Your task to perform on an android device: Add razer nari to the cart on ebay Image 0: 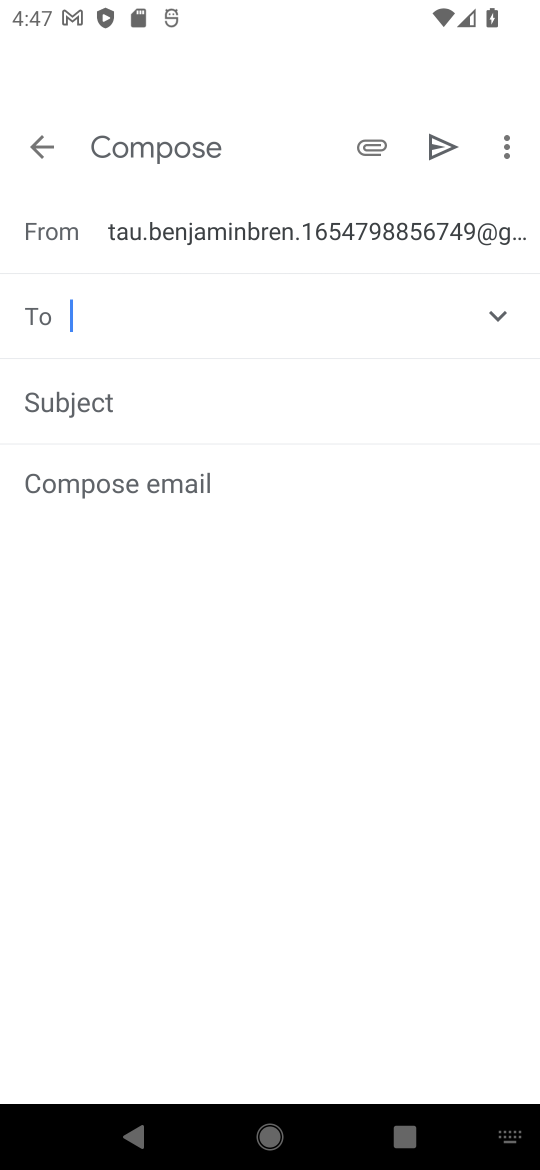
Step 0: press home button
Your task to perform on an android device: Add razer nari to the cart on ebay Image 1: 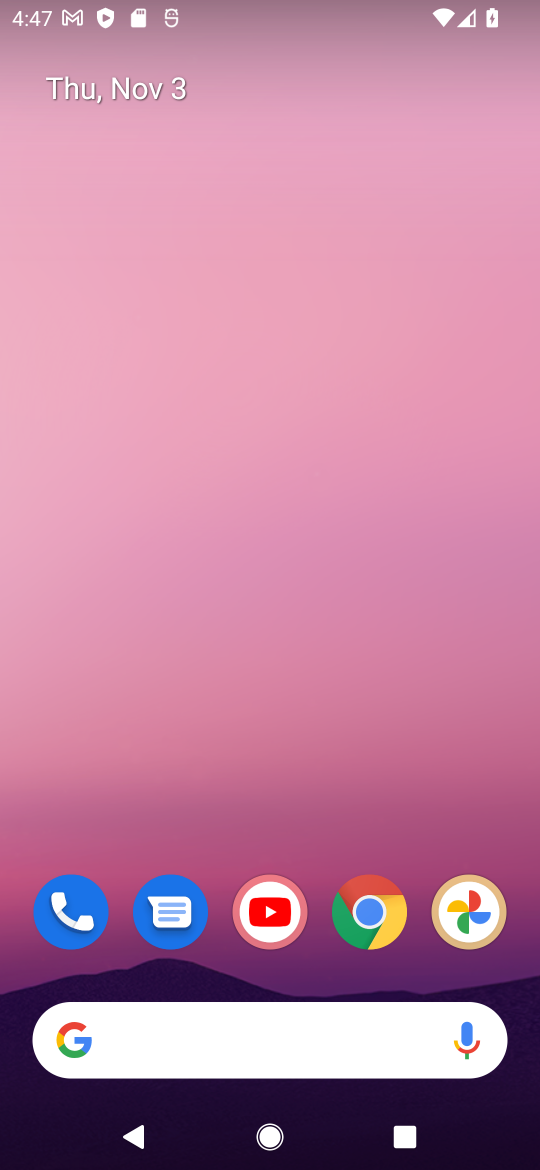
Step 1: click (370, 924)
Your task to perform on an android device: Add razer nari to the cart on ebay Image 2: 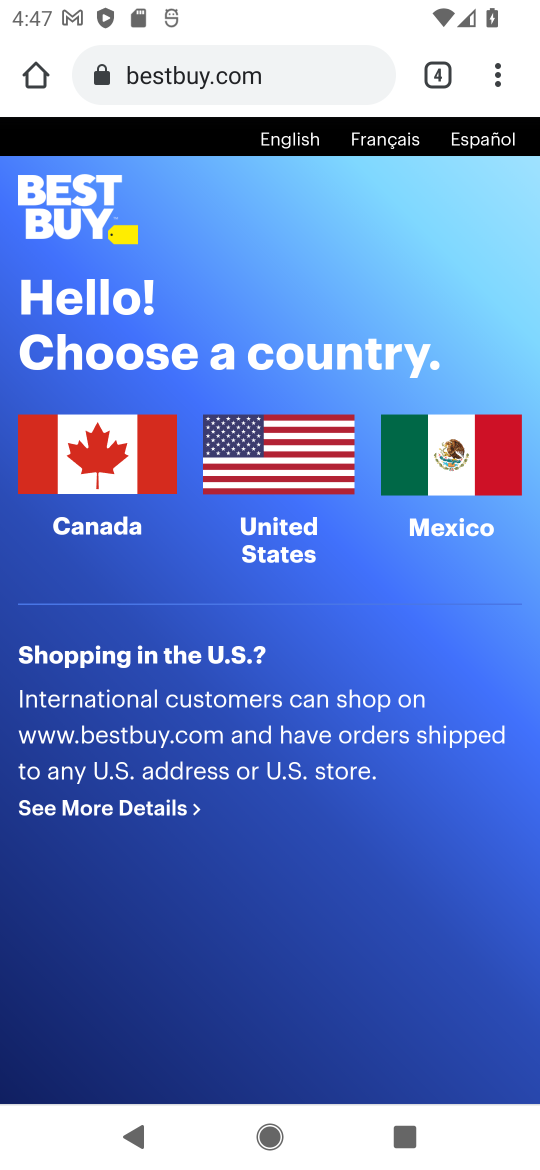
Step 2: click (432, 69)
Your task to perform on an android device: Add razer nari to the cart on ebay Image 3: 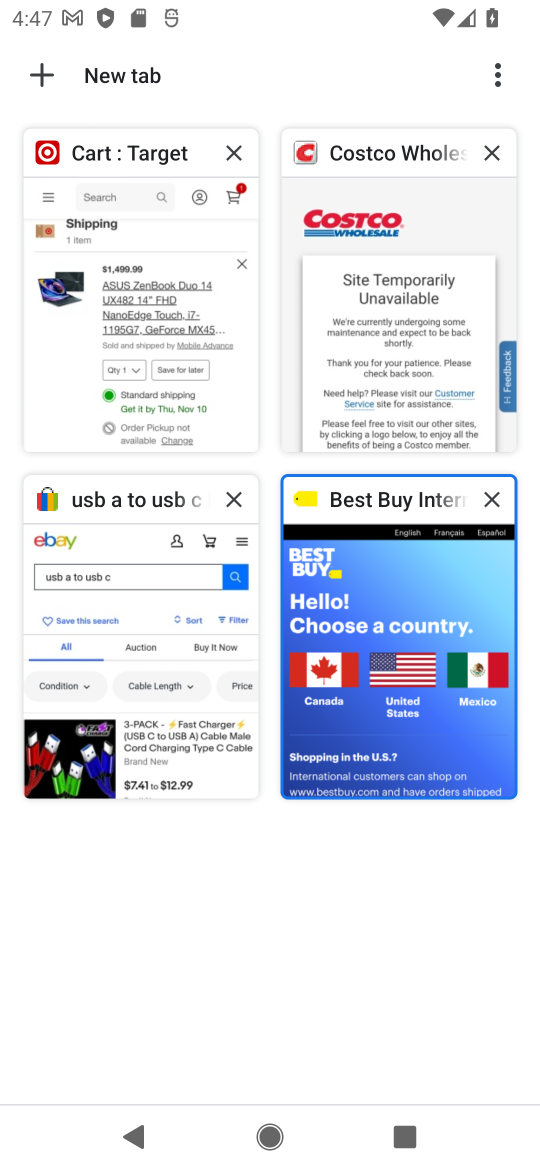
Step 3: click (32, 76)
Your task to perform on an android device: Add razer nari to the cart on ebay Image 4: 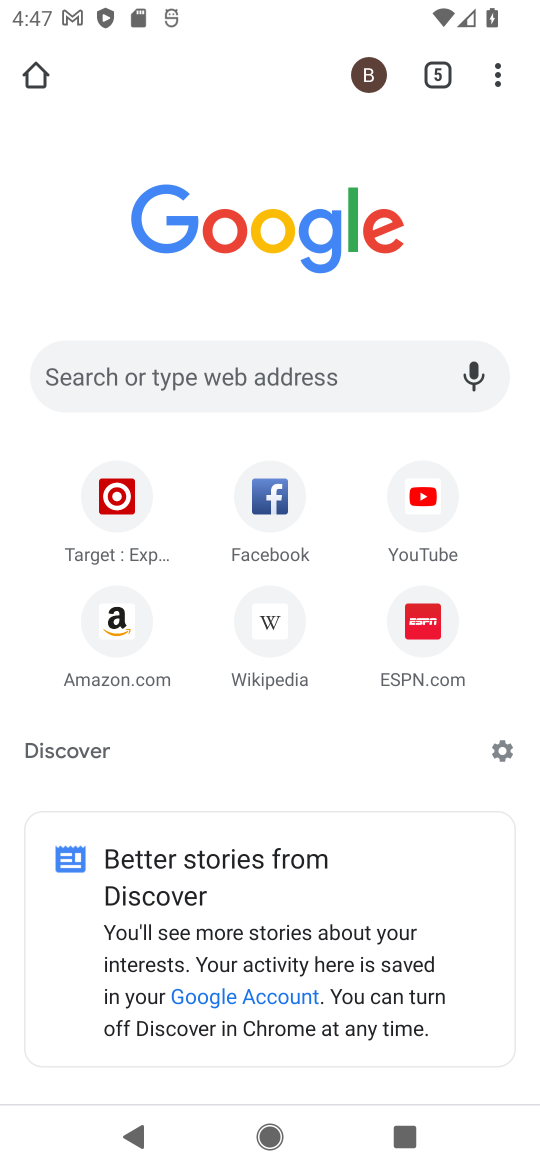
Step 4: click (164, 372)
Your task to perform on an android device: Add razer nari to the cart on ebay Image 5: 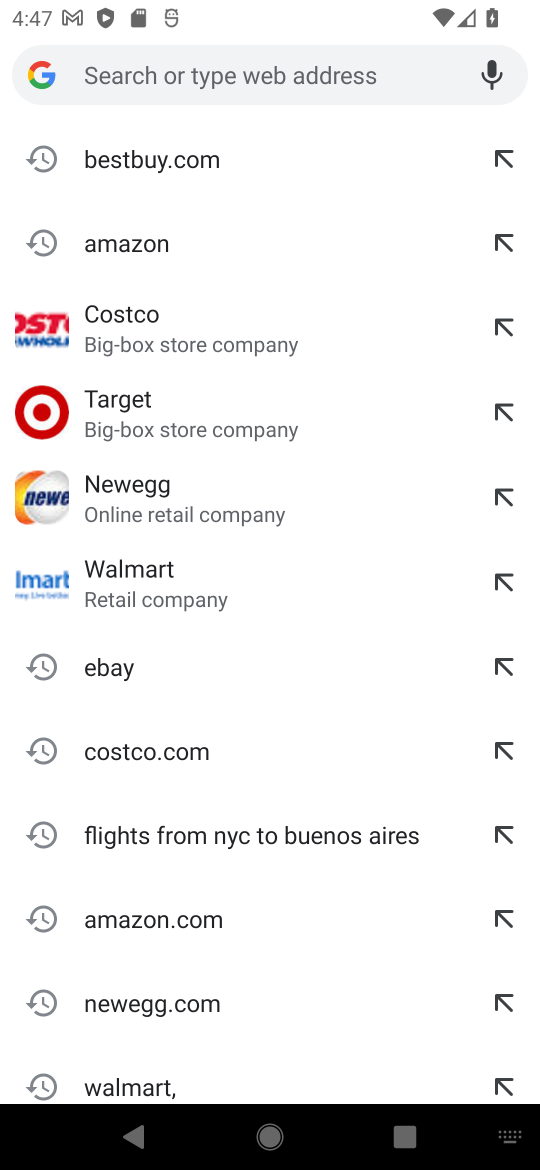
Step 5: type "ebay"
Your task to perform on an android device: Add razer nari to the cart on ebay Image 6: 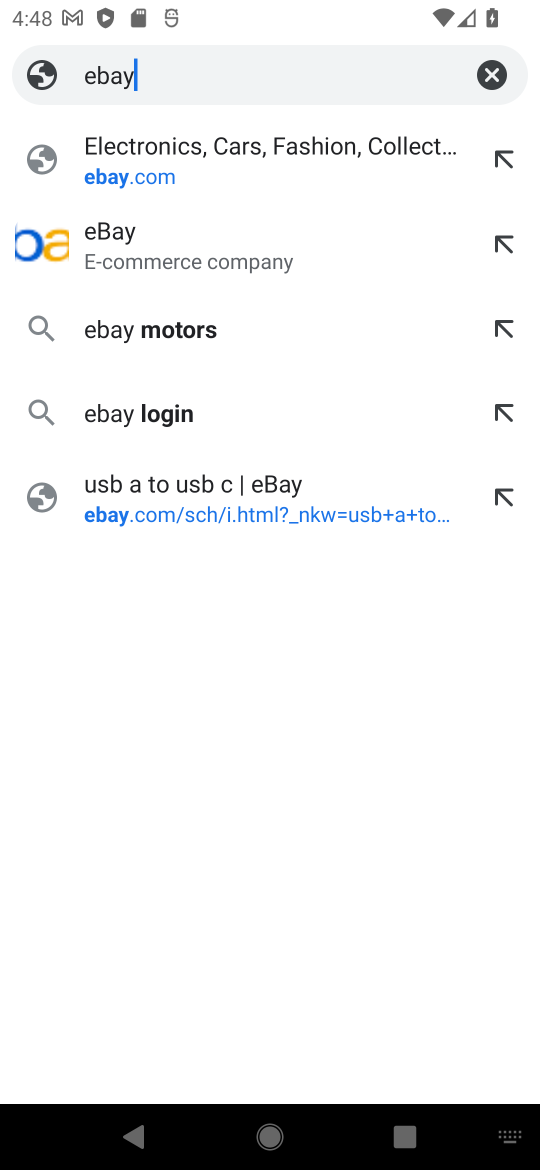
Step 6: click (228, 160)
Your task to perform on an android device: Add razer nari to the cart on ebay Image 7: 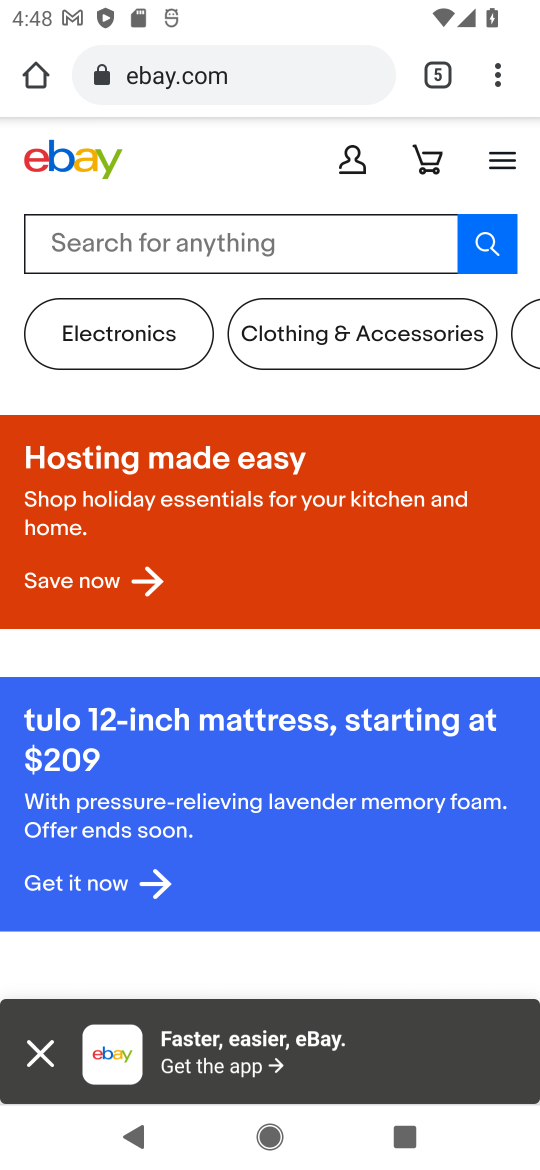
Step 7: click (167, 241)
Your task to perform on an android device: Add razer nari to the cart on ebay Image 8: 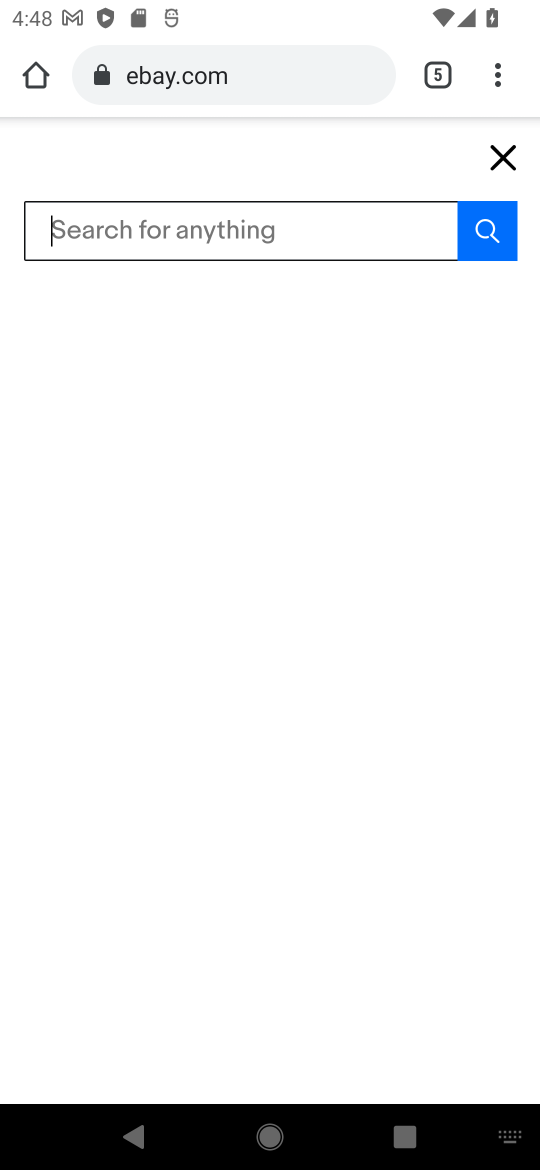
Step 8: type "razer nari"
Your task to perform on an android device: Add razer nari to the cart on ebay Image 9: 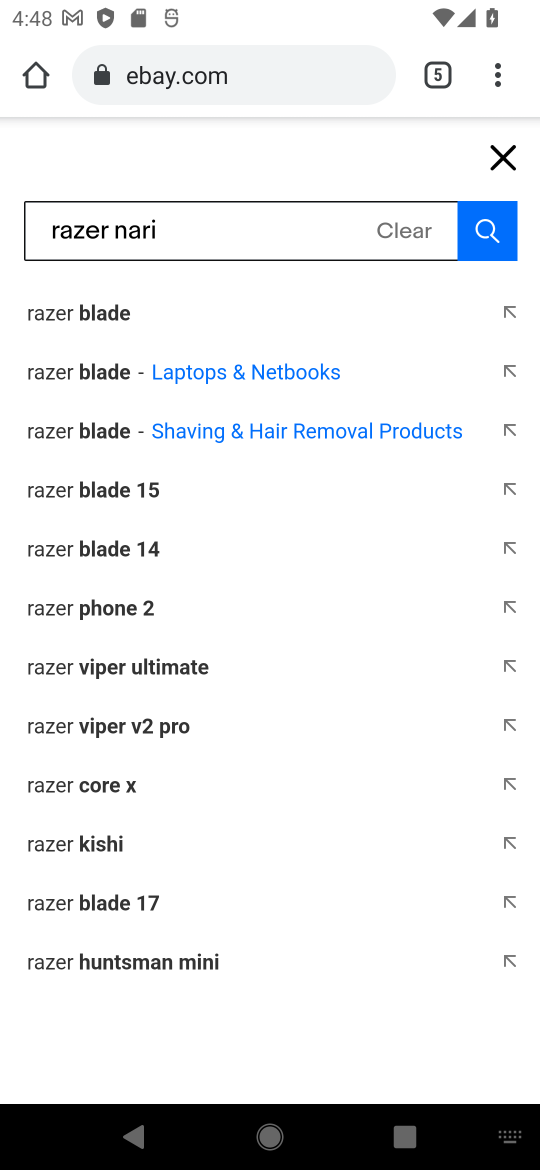
Step 9: click (80, 310)
Your task to perform on an android device: Add razer nari to the cart on ebay Image 10: 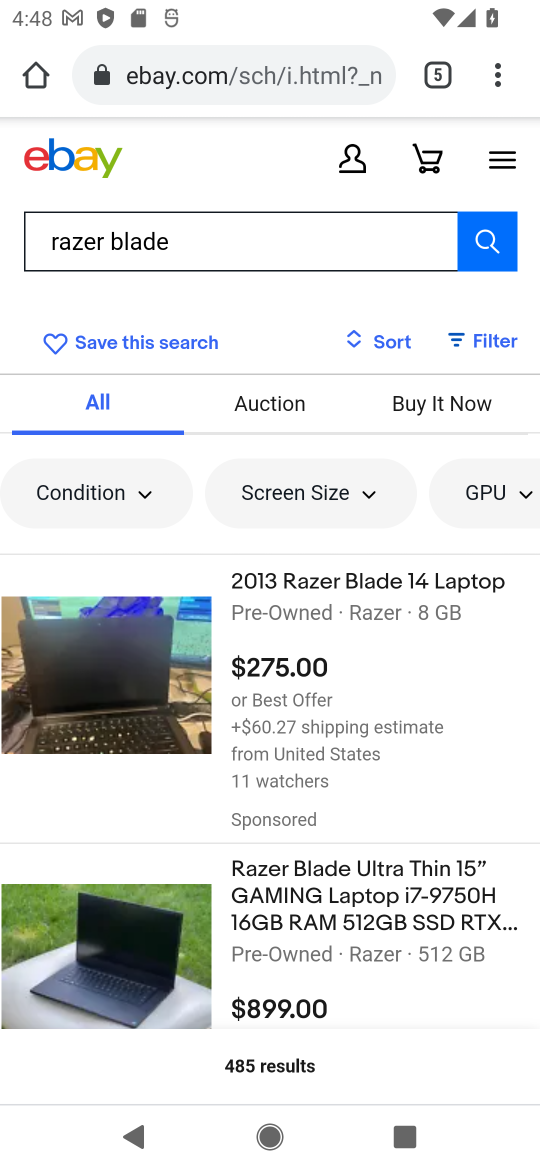
Step 10: click (186, 667)
Your task to perform on an android device: Add razer nari to the cart on ebay Image 11: 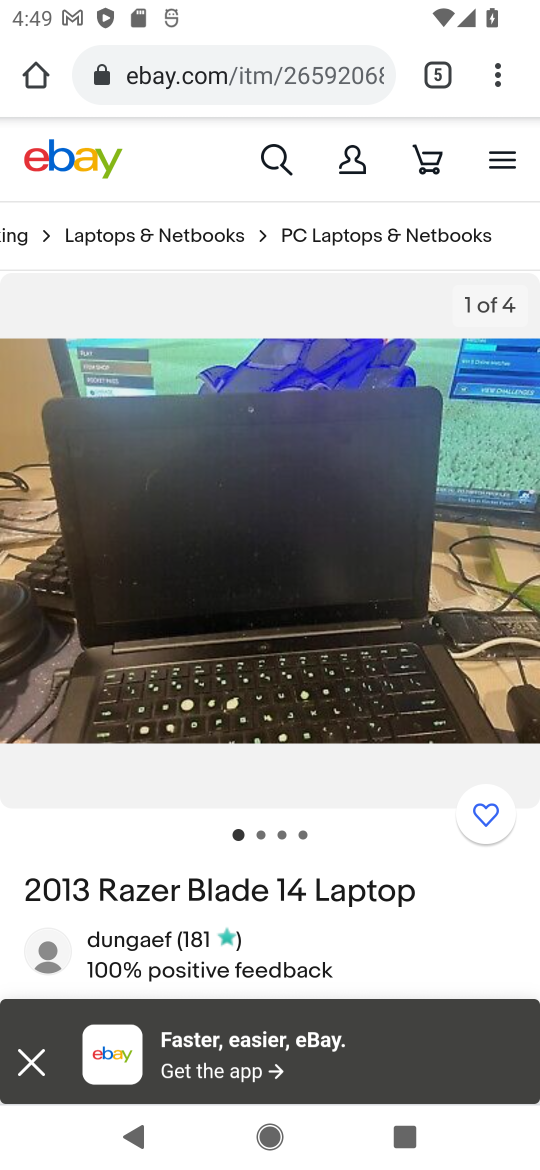
Step 11: drag from (321, 849) to (366, 177)
Your task to perform on an android device: Add razer nari to the cart on ebay Image 12: 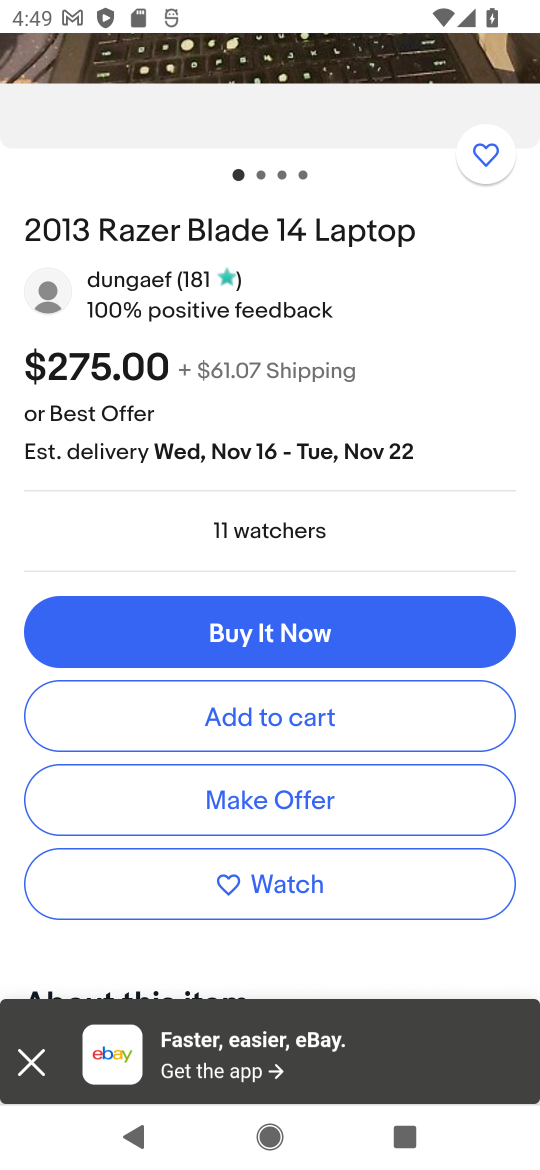
Step 12: click (282, 712)
Your task to perform on an android device: Add razer nari to the cart on ebay Image 13: 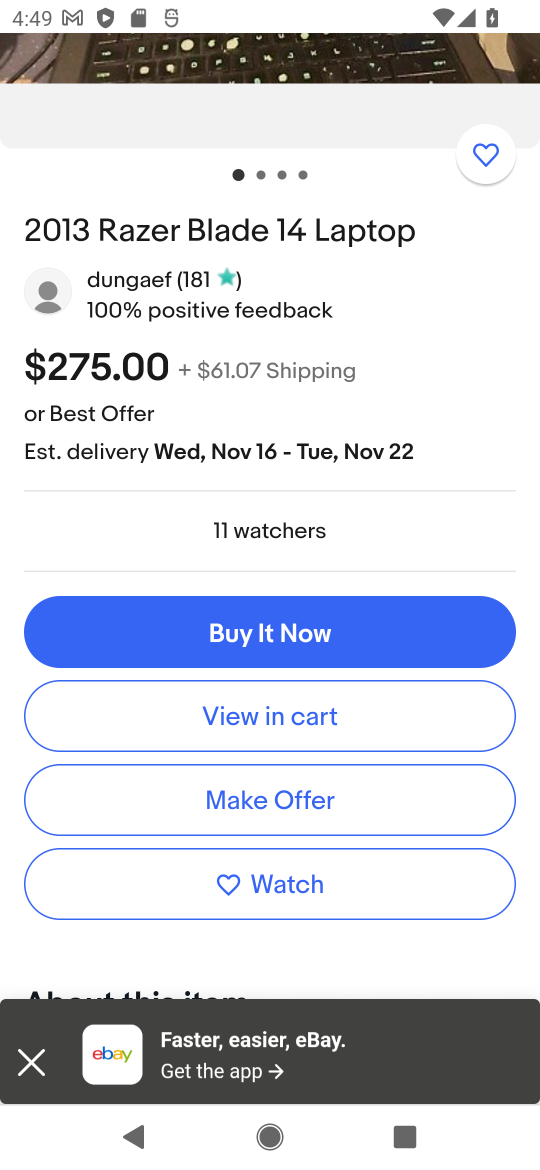
Step 13: click (274, 724)
Your task to perform on an android device: Add razer nari to the cart on ebay Image 14: 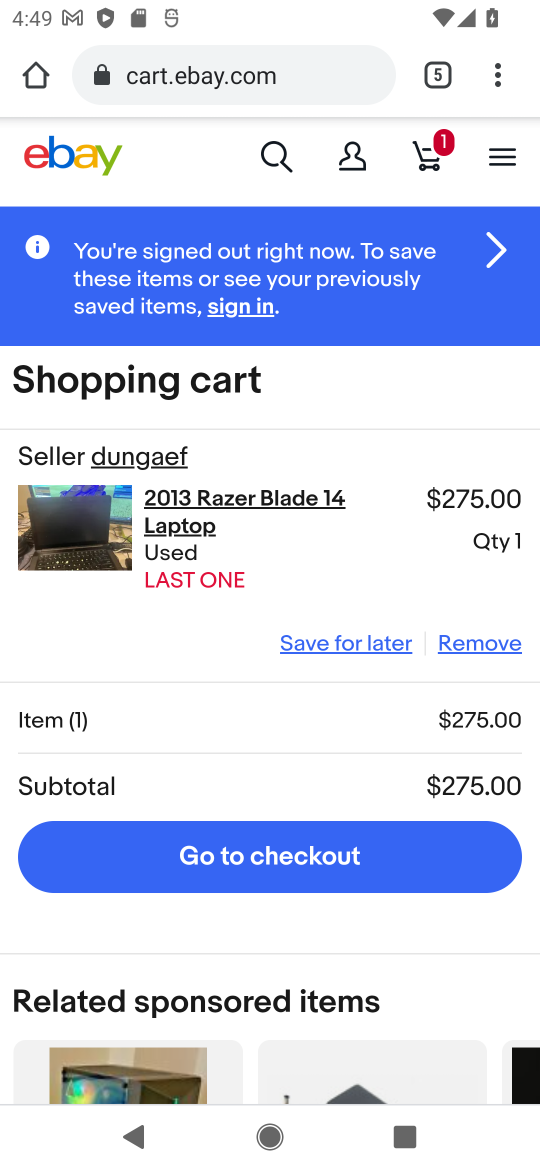
Step 14: task complete